Your task to perform on an android device: turn off wifi Image 0: 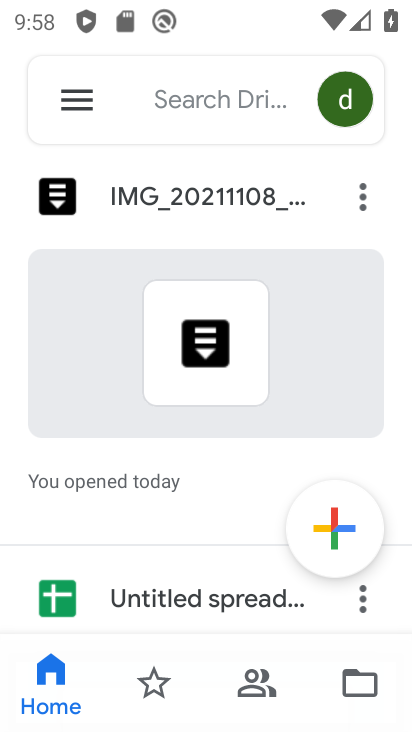
Step 0: press home button
Your task to perform on an android device: turn off wifi Image 1: 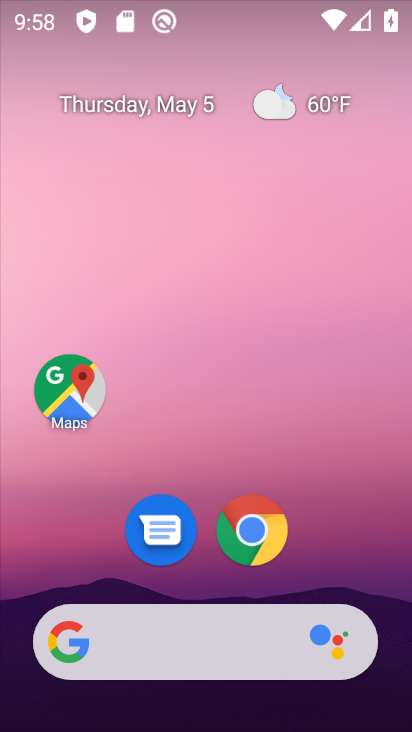
Step 1: drag from (318, 553) to (207, 108)
Your task to perform on an android device: turn off wifi Image 2: 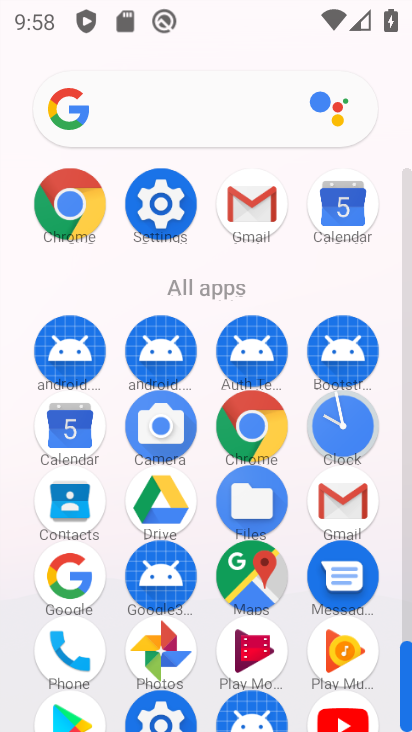
Step 2: click (170, 207)
Your task to perform on an android device: turn off wifi Image 3: 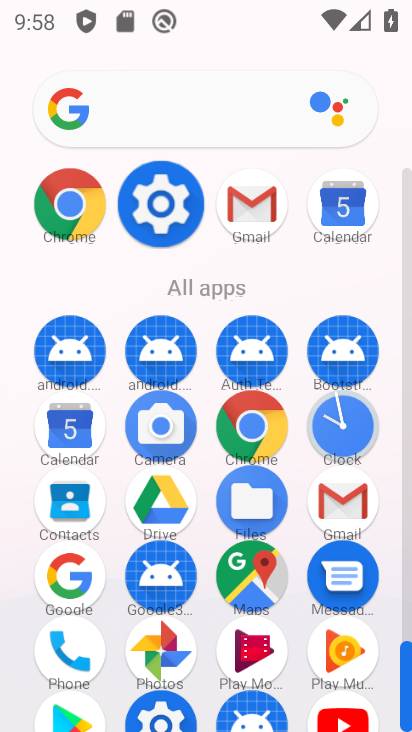
Step 3: click (155, 201)
Your task to perform on an android device: turn off wifi Image 4: 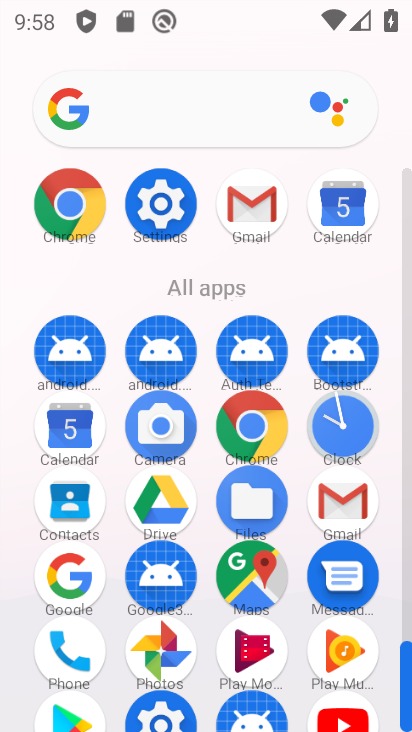
Step 4: click (155, 201)
Your task to perform on an android device: turn off wifi Image 5: 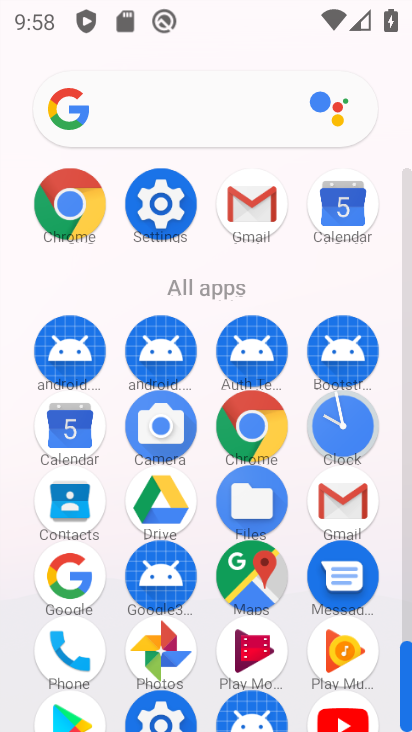
Step 5: click (155, 201)
Your task to perform on an android device: turn off wifi Image 6: 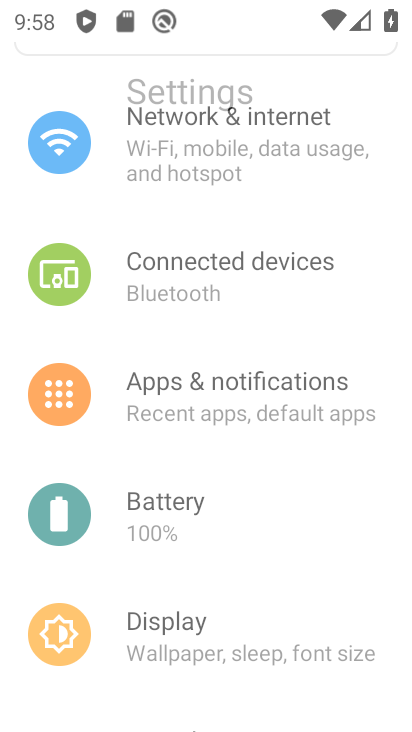
Step 6: click (155, 201)
Your task to perform on an android device: turn off wifi Image 7: 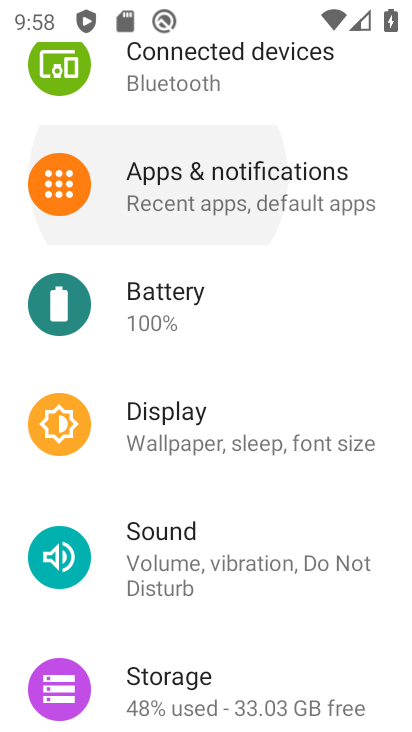
Step 7: click (155, 201)
Your task to perform on an android device: turn off wifi Image 8: 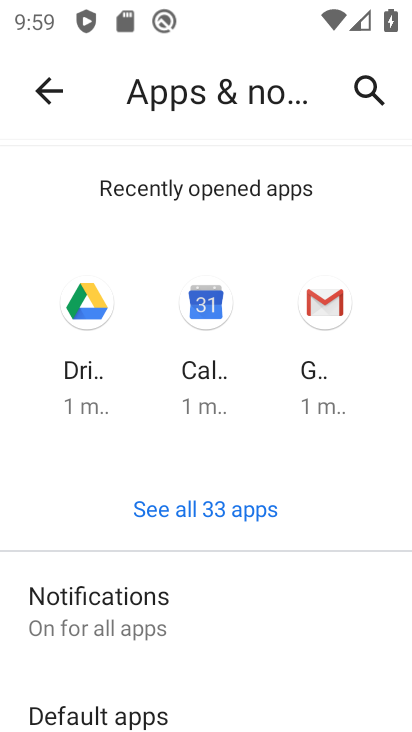
Step 8: click (39, 95)
Your task to perform on an android device: turn off wifi Image 9: 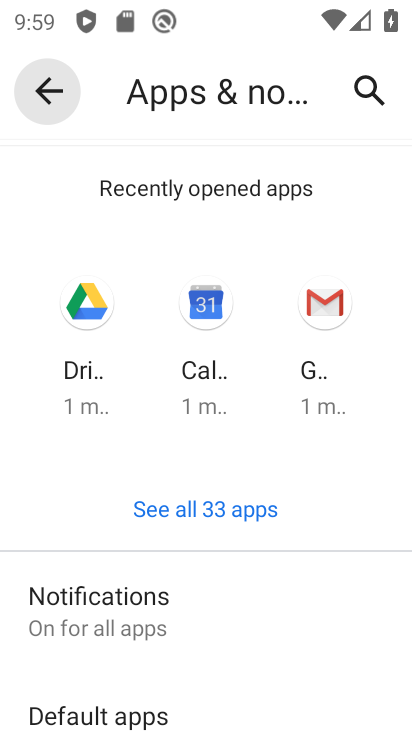
Step 9: click (41, 93)
Your task to perform on an android device: turn off wifi Image 10: 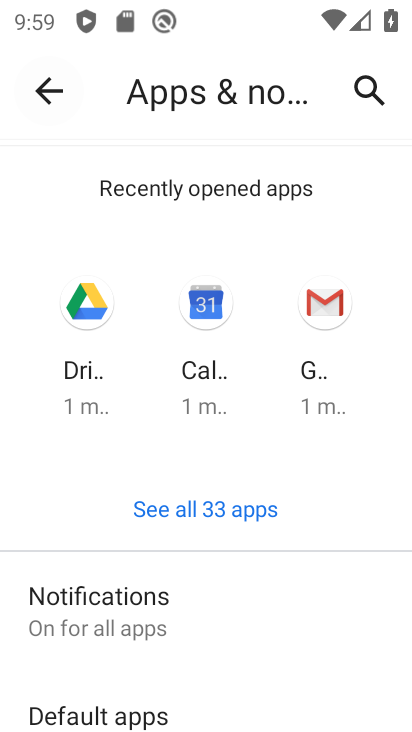
Step 10: click (43, 90)
Your task to perform on an android device: turn off wifi Image 11: 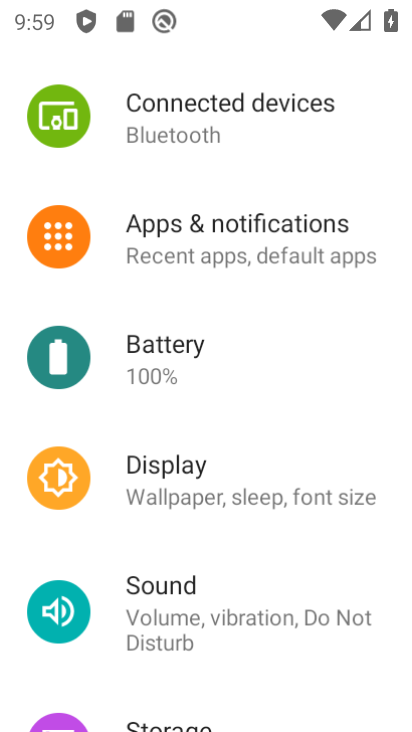
Step 11: click (43, 90)
Your task to perform on an android device: turn off wifi Image 12: 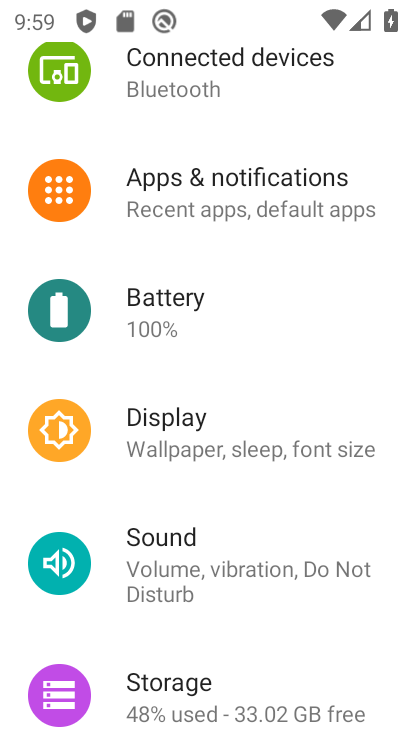
Step 12: click (43, 90)
Your task to perform on an android device: turn off wifi Image 13: 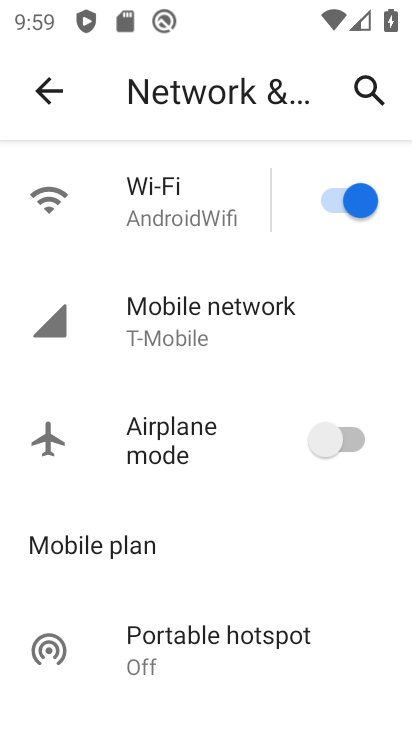
Step 13: task complete